Your task to perform on an android device: change alarm snooze length Image 0: 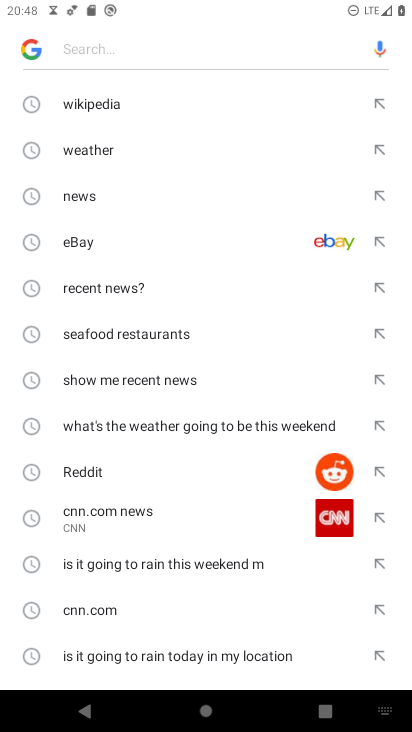
Step 0: press home button
Your task to perform on an android device: change alarm snooze length Image 1: 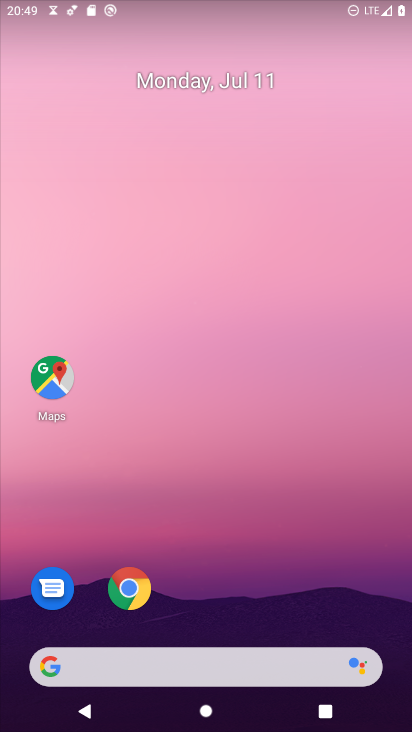
Step 1: drag from (282, 582) to (295, 11)
Your task to perform on an android device: change alarm snooze length Image 2: 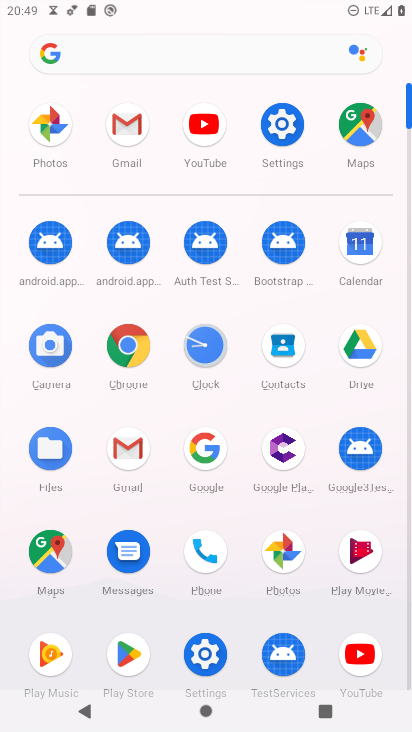
Step 2: click (196, 338)
Your task to perform on an android device: change alarm snooze length Image 3: 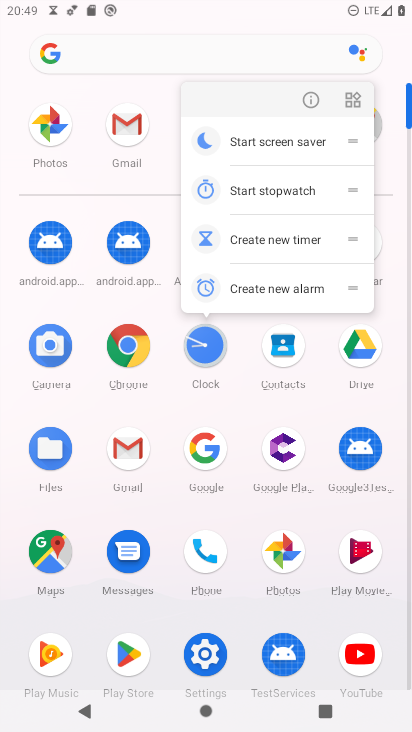
Step 3: click (204, 335)
Your task to perform on an android device: change alarm snooze length Image 4: 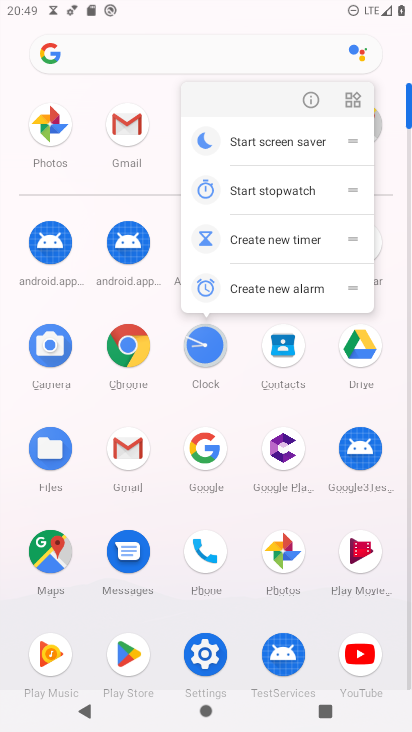
Step 4: click (204, 335)
Your task to perform on an android device: change alarm snooze length Image 5: 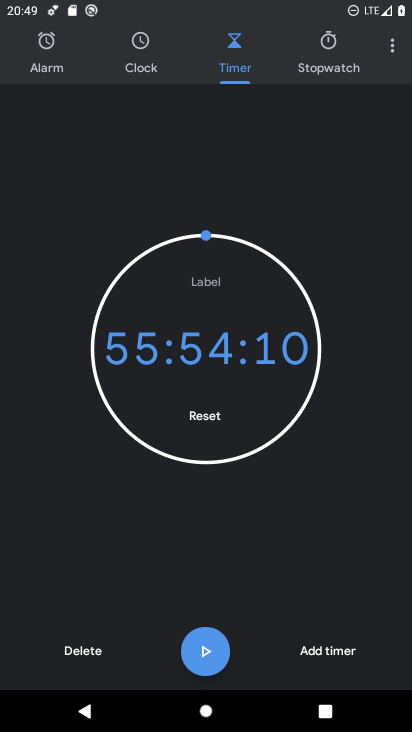
Step 5: drag from (395, 55) to (395, 97)
Your task to perform on an android device: change alarm snooze length Image 6: 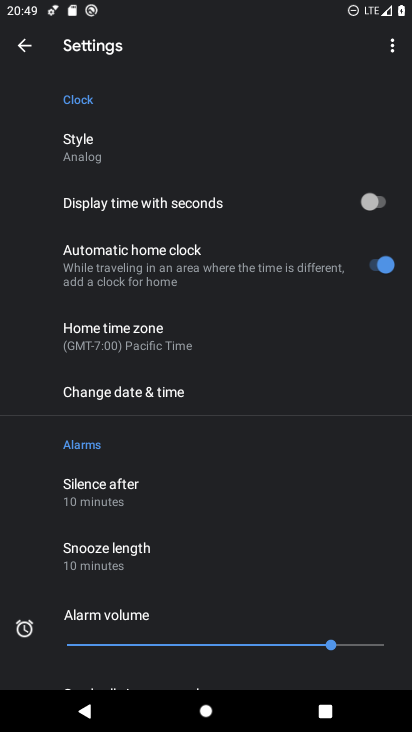
Step 6: click (143, 555)
Your task to perform on an android device: change alarm snooze length Image 7: 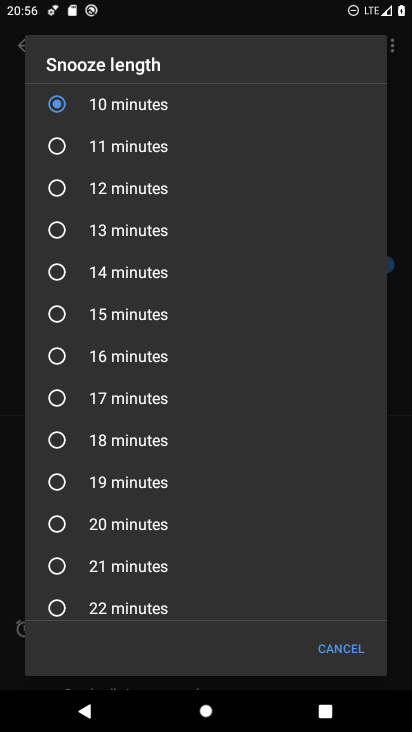
Step 7: press home button
Your task to perform on an android device: change alarm snooze length Image 8: 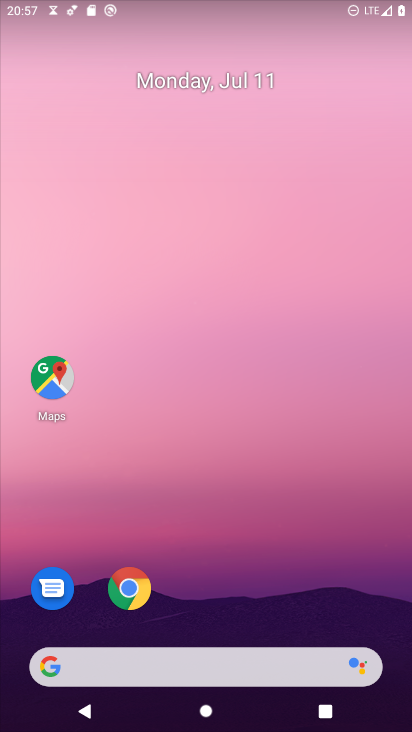
Step 8: drag from (220, 620) to (283, 257)
Your task to perform on an android device: change alarm snooze length Image 9: 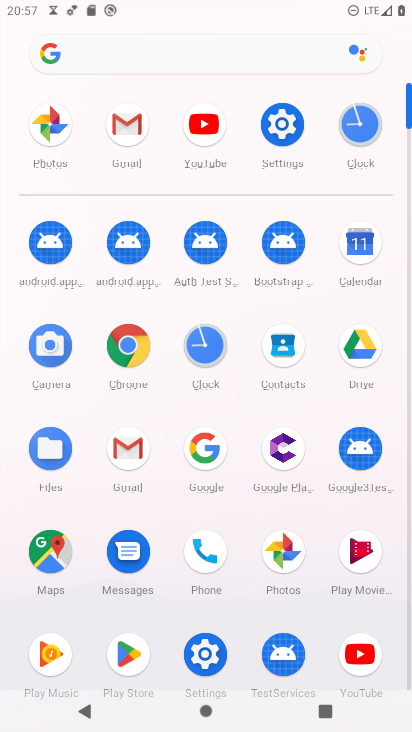
Step 9: click (351, 128)
Your task to perform on an android device: change alarm snooze length Image 10: 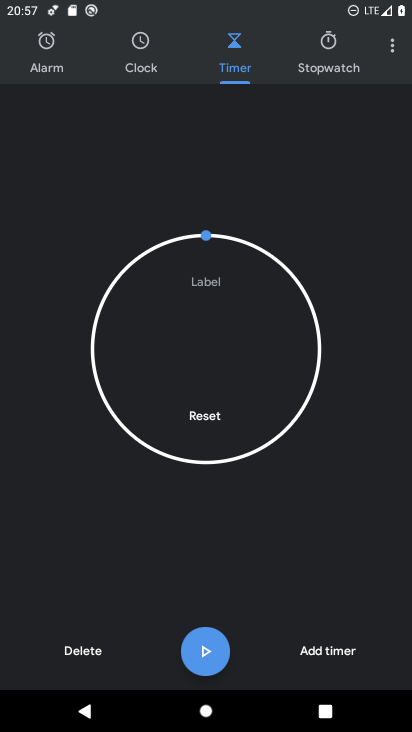
Step 10: click (398, 56)
Your task to perform on an android device: change alarm snooze length Image 11: 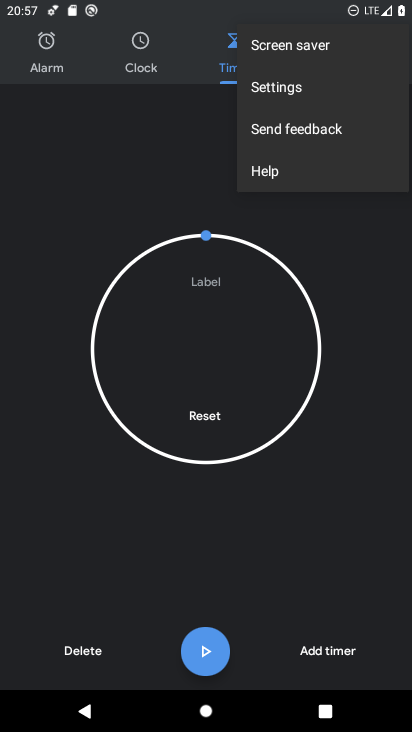
Step 11: click (288, 84)
Your task to perform on an android device: change alarm snooze length Image 12: 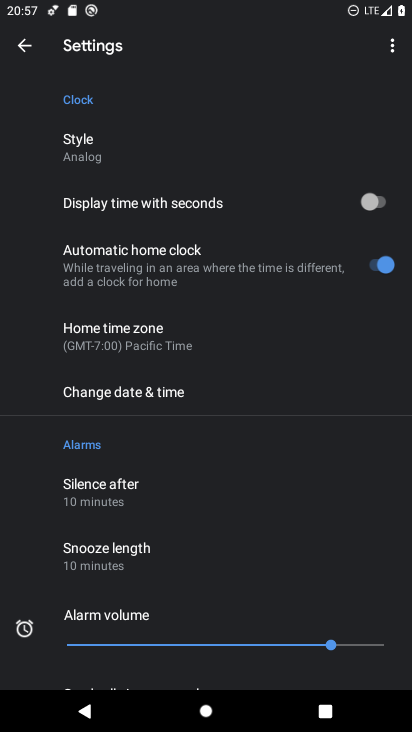
Step 12: click (119, 554)
Your task to perform on an android device: change alarm snooze length Image 13: 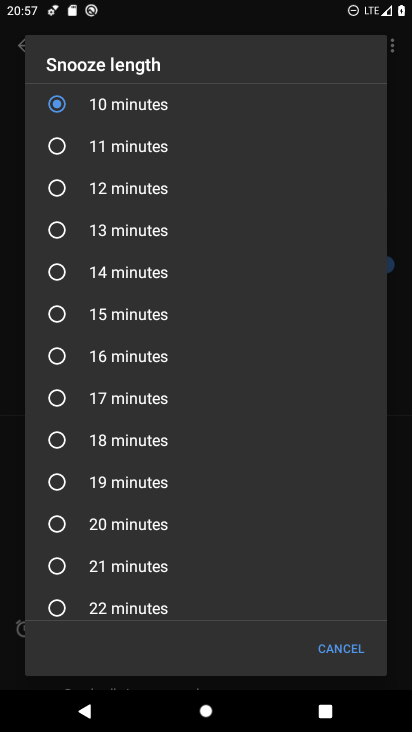
Step 13: click (63, 315)
Your task to perform on an android device: change alarm snooze length Image 14: 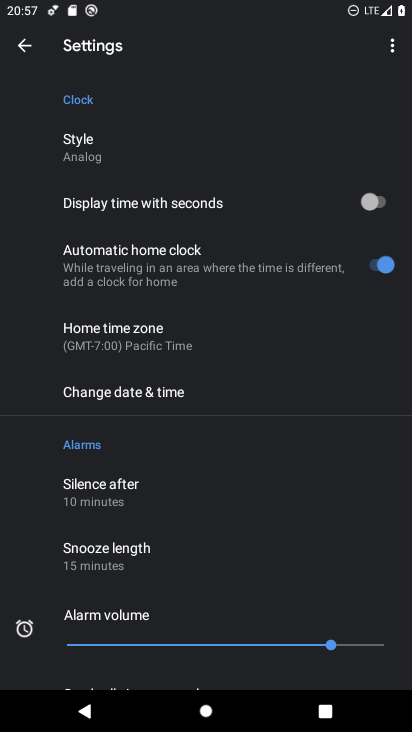
Step 14: task complete